Your task to perform on an android device: turn on the 24-hour format for clock Image 0: 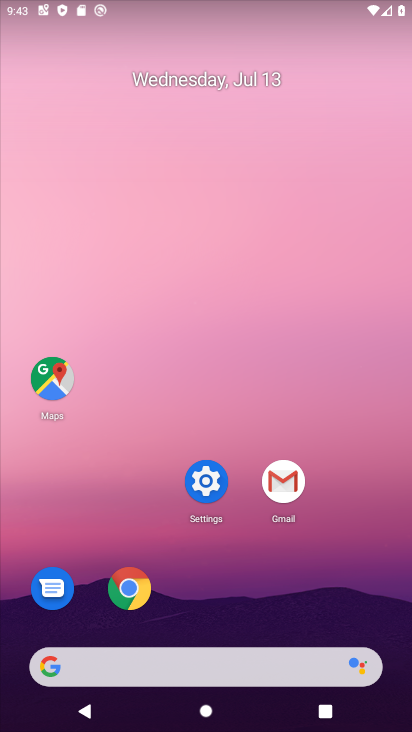
Step 0: drag from (392, 648) to (366, 197)
Your task to perform on an android device: turn on the 24-hour format for clock Image 1: 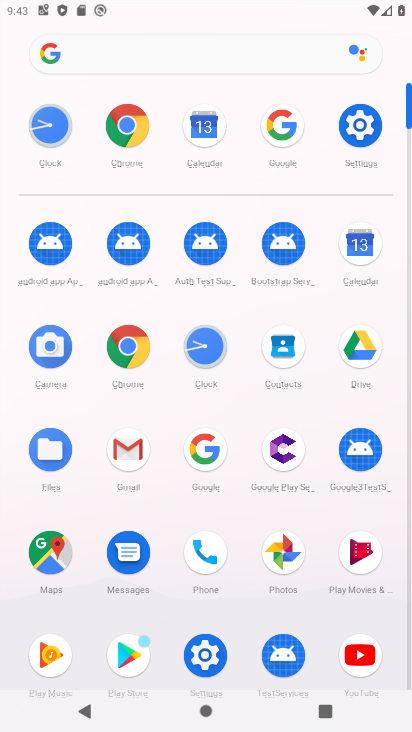
Step 1: click (206, 348)
Your task to perform on an android device: turn on the 24-hour format for clock Image 2: 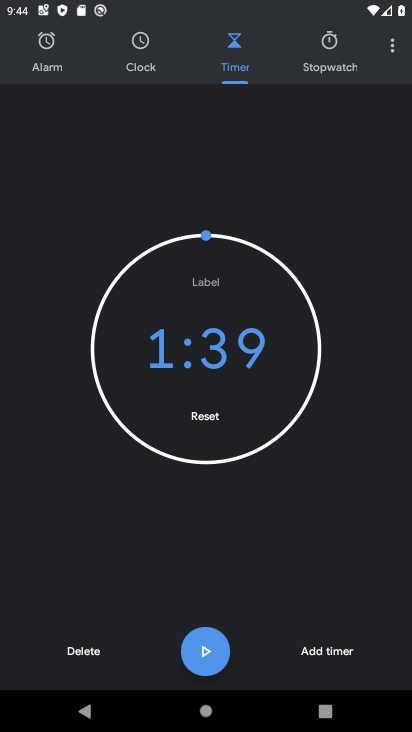
Step 2: click (396, 45)
Your task to perform on an android device: turn on the 24-hour format for clock Image 3: 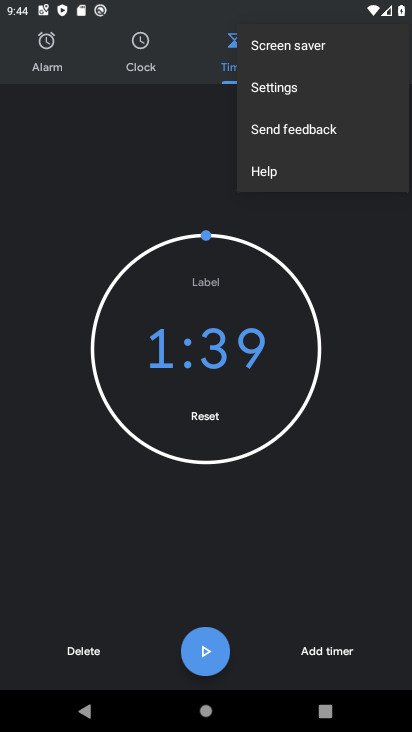
Step 3: click (266, 88)
Your task to perform on an android device: turn on the 24-hour format for clock Image 4: 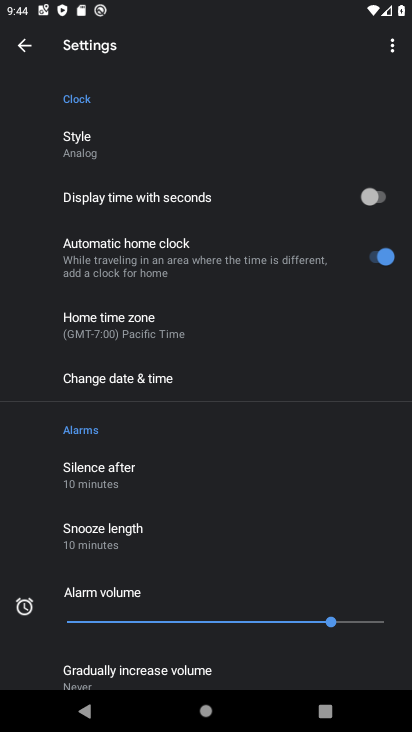
Step 4: click (114, 373)
Your task to perform on an android device: turn on the 24-hour format for clock Image 5: 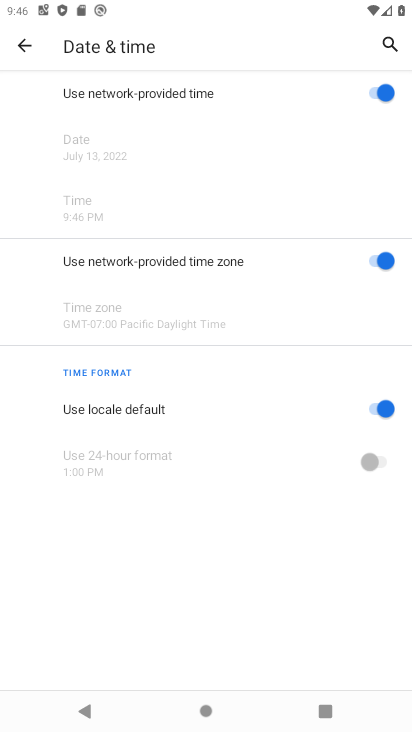
Step 5: click (381, 408)
Your task to perform on an android device: turn on the 24-hour format for clock Image 6: 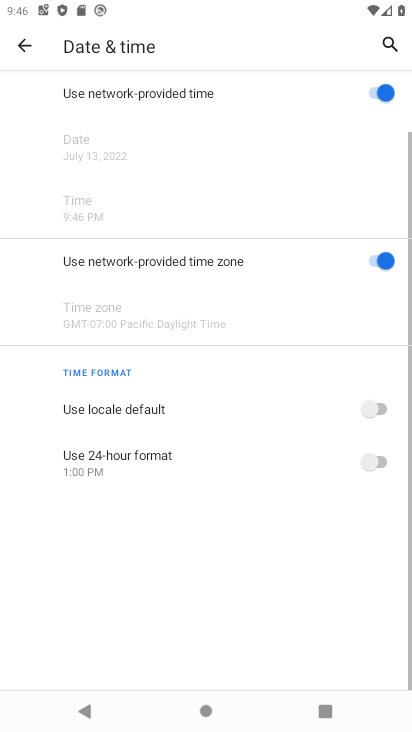
Step 6: click (382, 459)
Your task to perform on an android device: turn on the 24-hour format for clock Image 7: 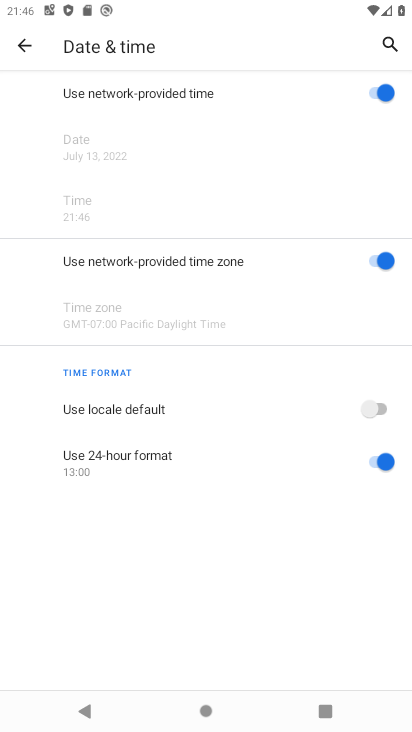
Step 7: task complete